Your task to perform on an android device: toggle translation in the chrome app Image 0: 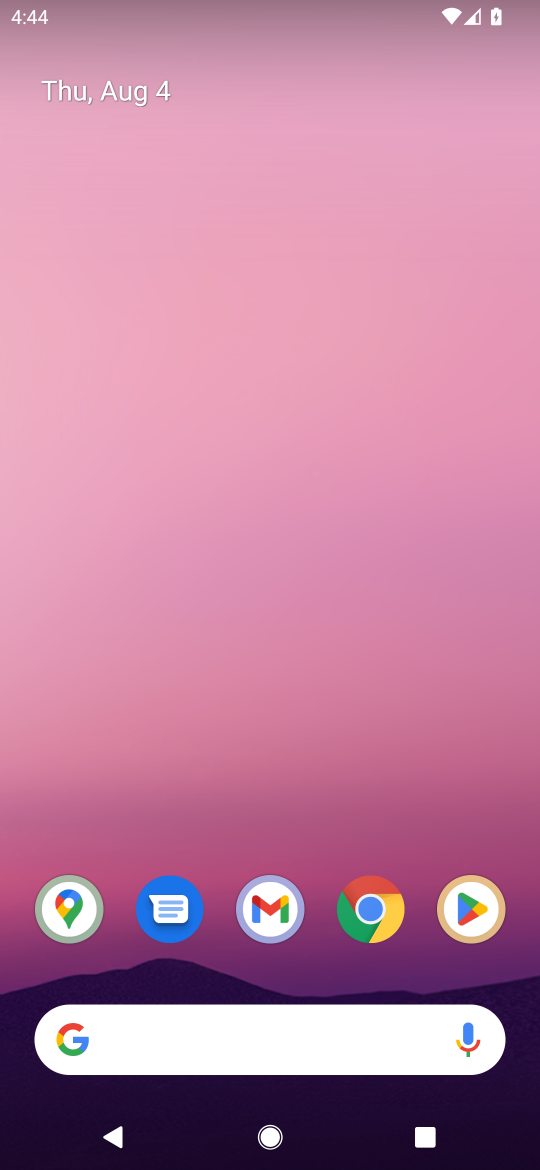
Step 0: press home button
Your task to perform on an android device: toggle translation in the chrome app Image 1: 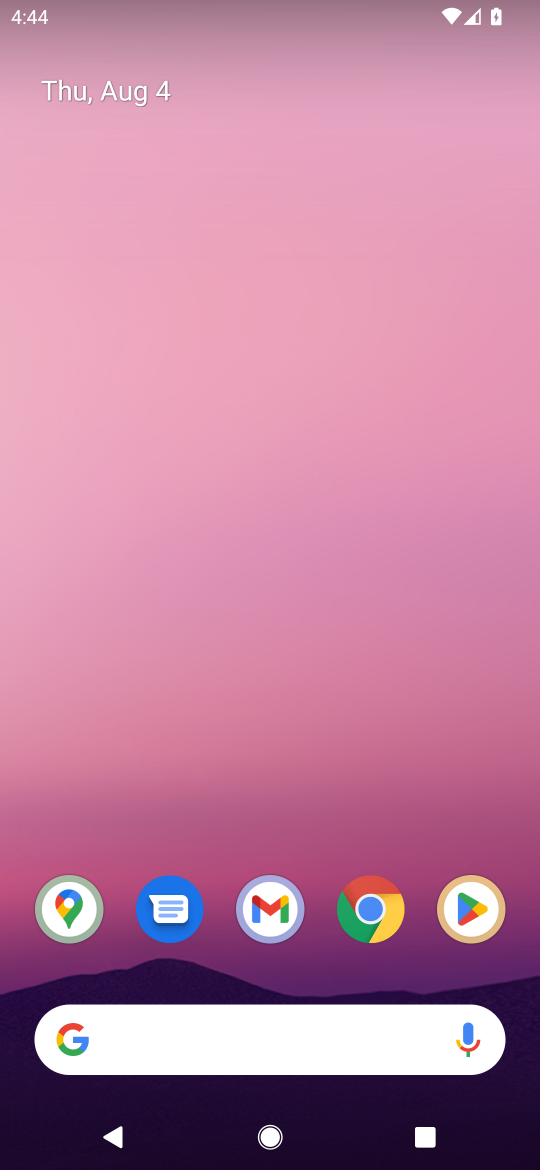
Step 1: click (377, 931)
Your task to perform on an android device: toggle translation in the chrome app Image 2: 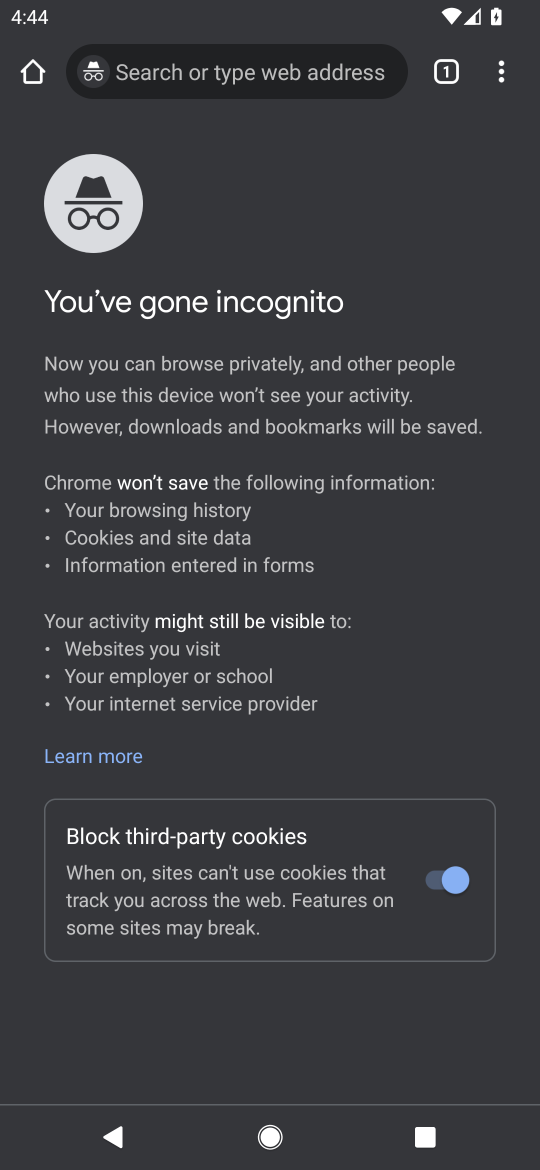
Step 2: click (349, 604)
Your task to perform on an android device: toggle translation in the chrome app Image 3: 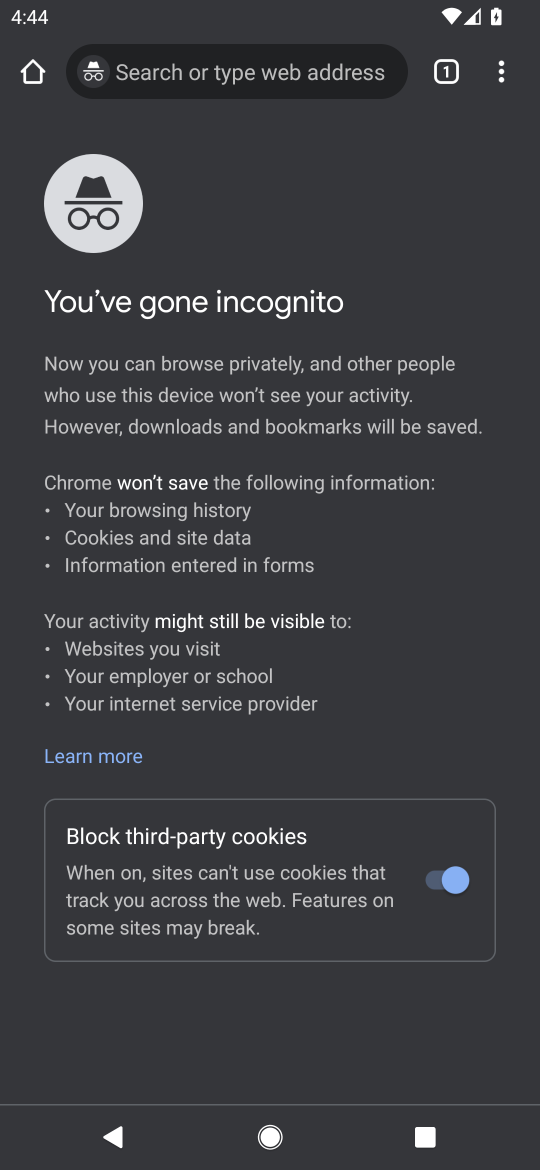
Step 3: drag from (497, 74) to (277, 664)
Your task to perform on an android device: toggle translation in the chrome app Image 4: 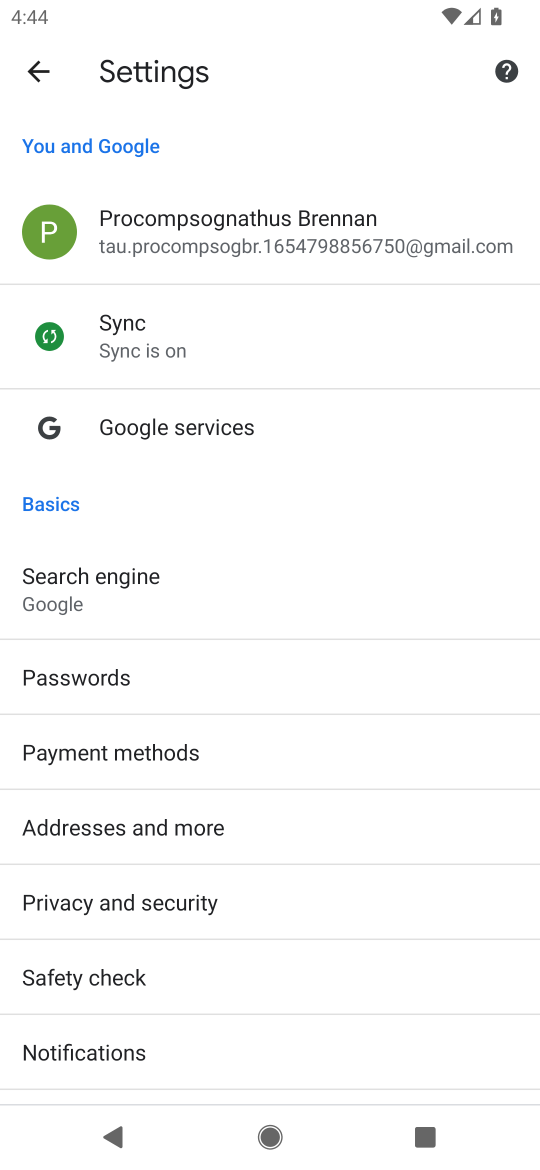
Step 4: drag from (176, 1030) to (262, 696)
Your task to perform on an android device: toggle translation in the chrome app Image 5: 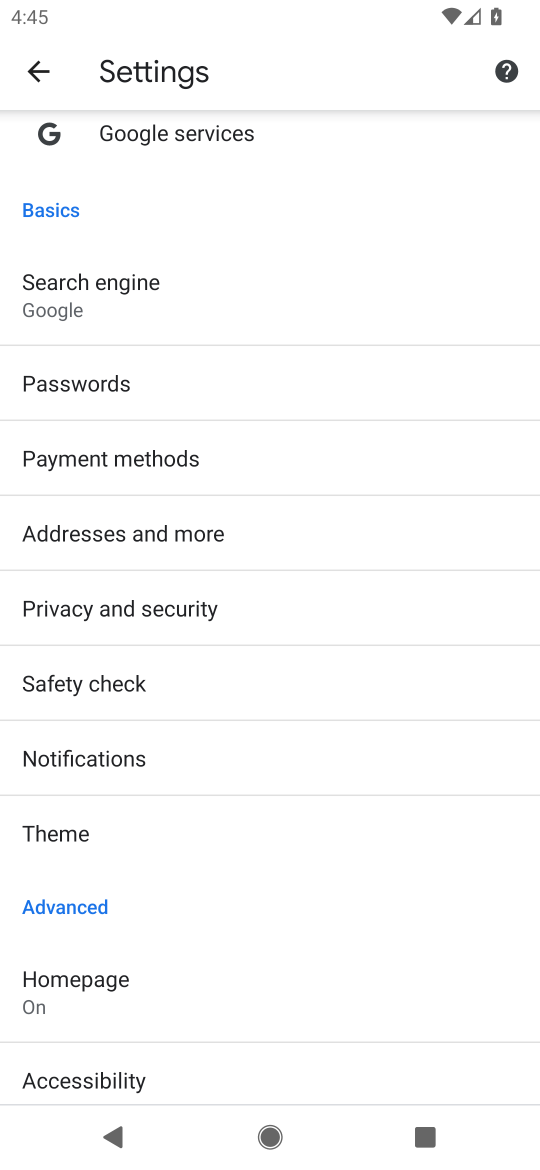
Step 5: drag from (124, 912) to (162, 427)
Your task to perform on an android device: toggle translation in the chrome app Image 6: 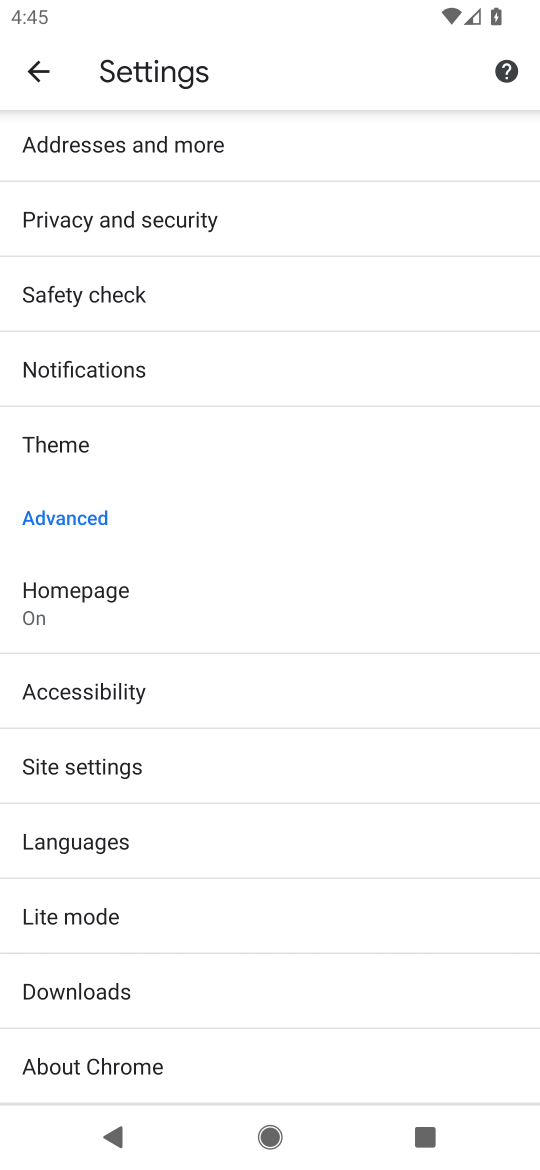
Step 6: click (69, 837)
Your task to perform on an android device: toggle translation in the chrome app Image 7: 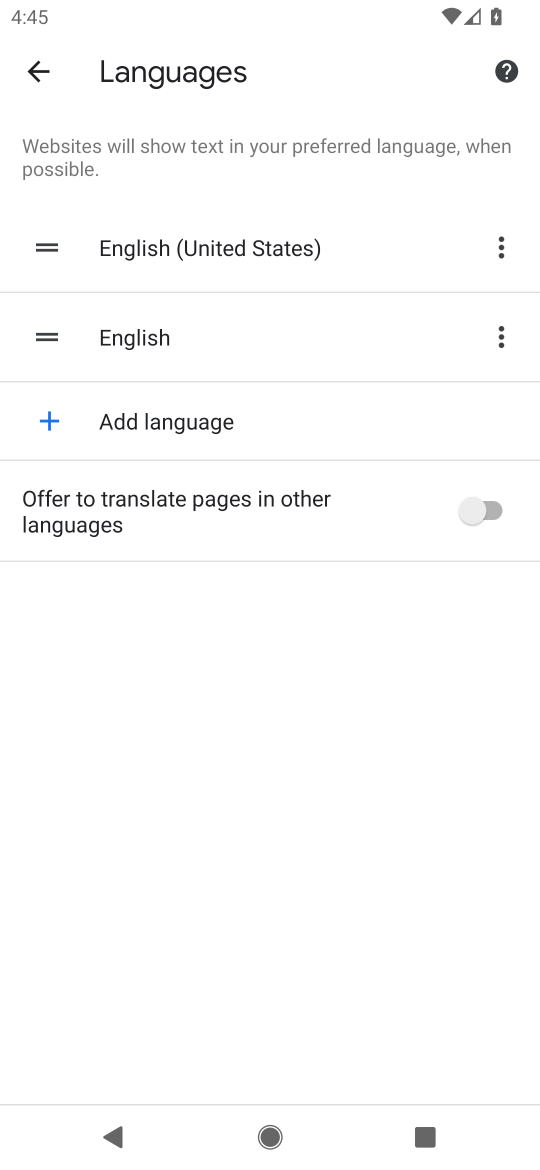
Step 7: click (498, 500)
Your task to perform on an android device: toggle translation in the chrome app Image 8: 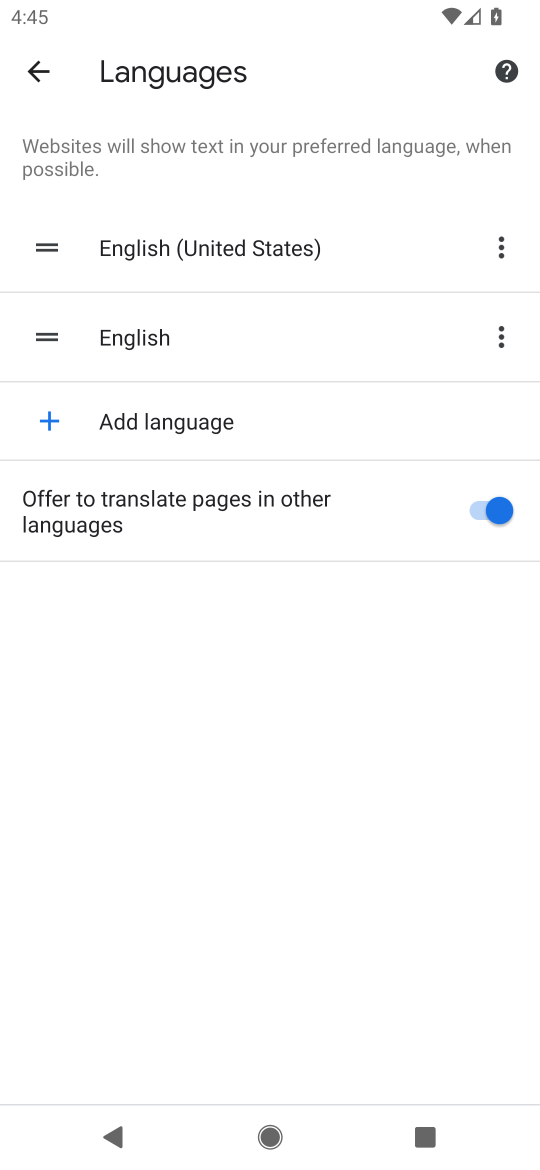
Step 8: task complete